Your task to perform on an android device: turn off javascript in the chrome app Image 0: 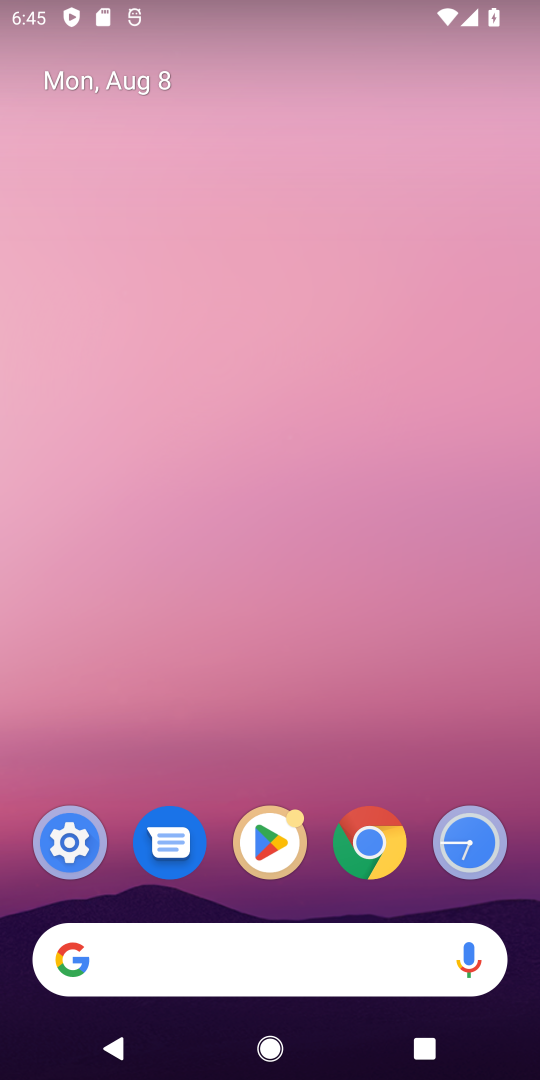
Step 0: click (365, 832)
Your task to perform on an android device: turn off javascript in the chrome app Image 1: 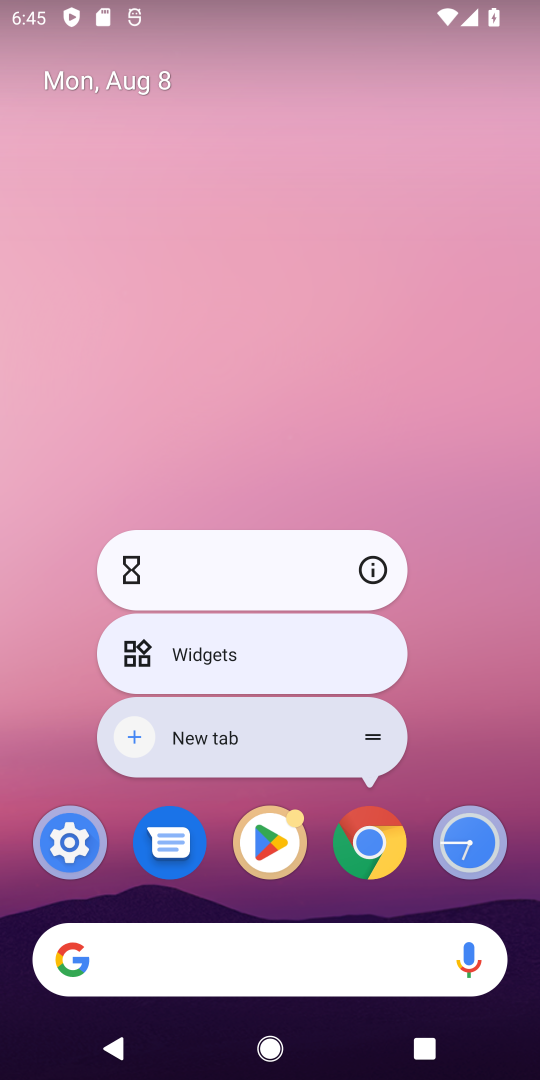
Step 1: click (385, 884)
Your task to perform on an android device: turn off javascript in the chrome app Image 2: 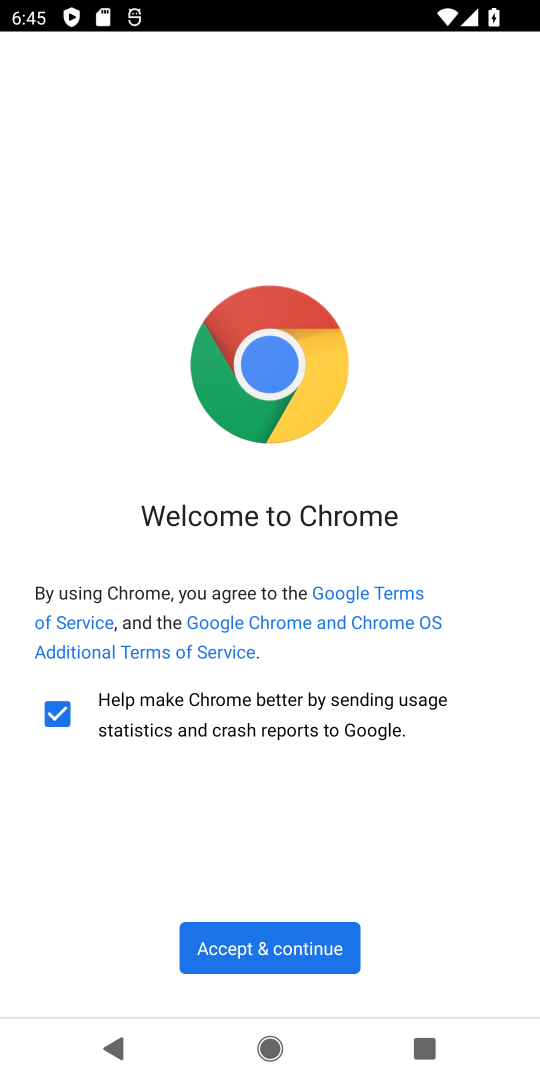
Step 2: click (243, 931)
Your task to perform on an android device: turn off javascript in the chrome app Image 3: 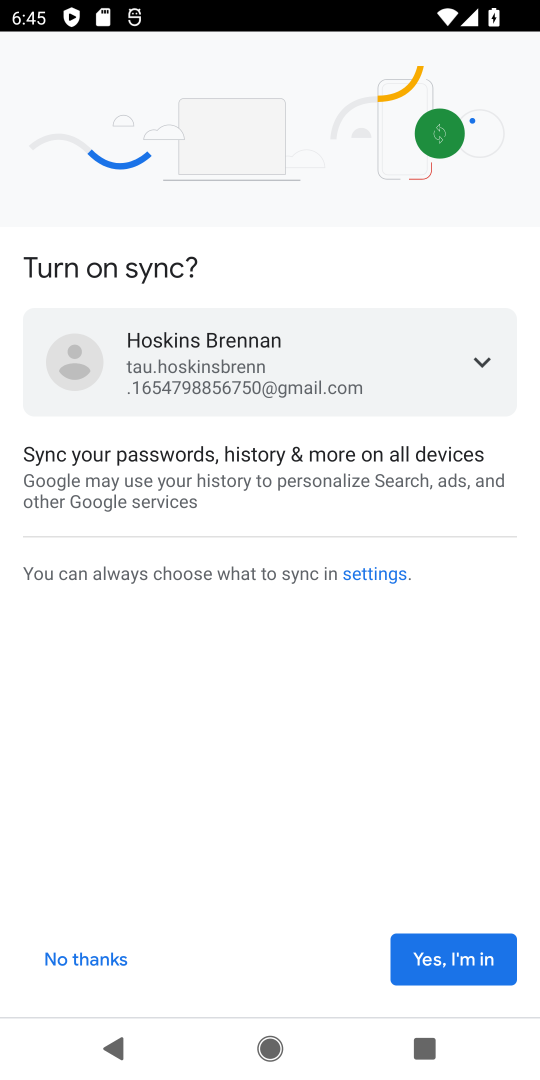
Step 3: click (400, 956)
Your task to perform on an android device: turn off javascript in the chrome app Image 4: 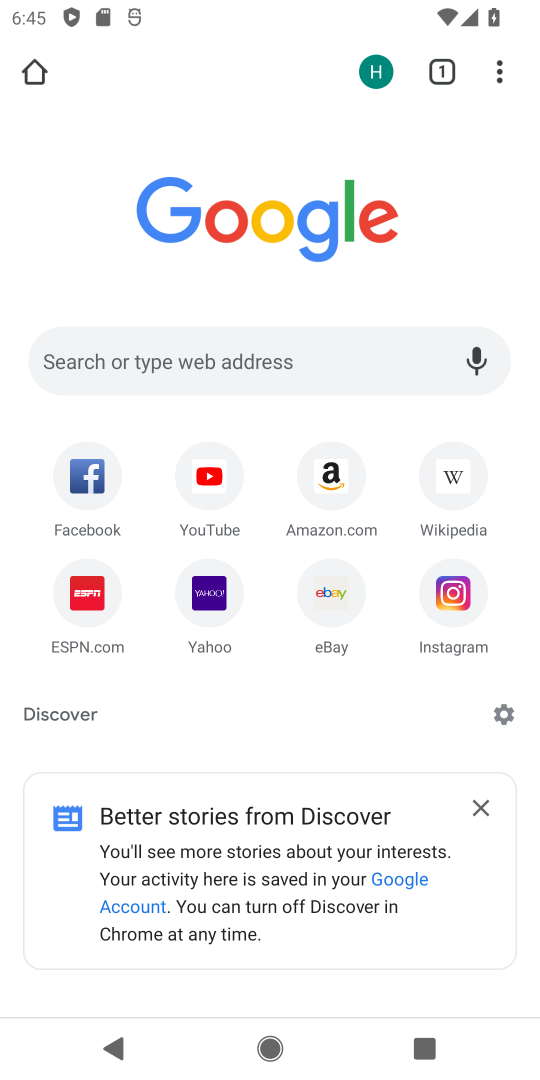
Step 4: drag from (505, 66) to (259, 674)
Your task to perform on an android device: turn off javascript in the chrome app Image 5: 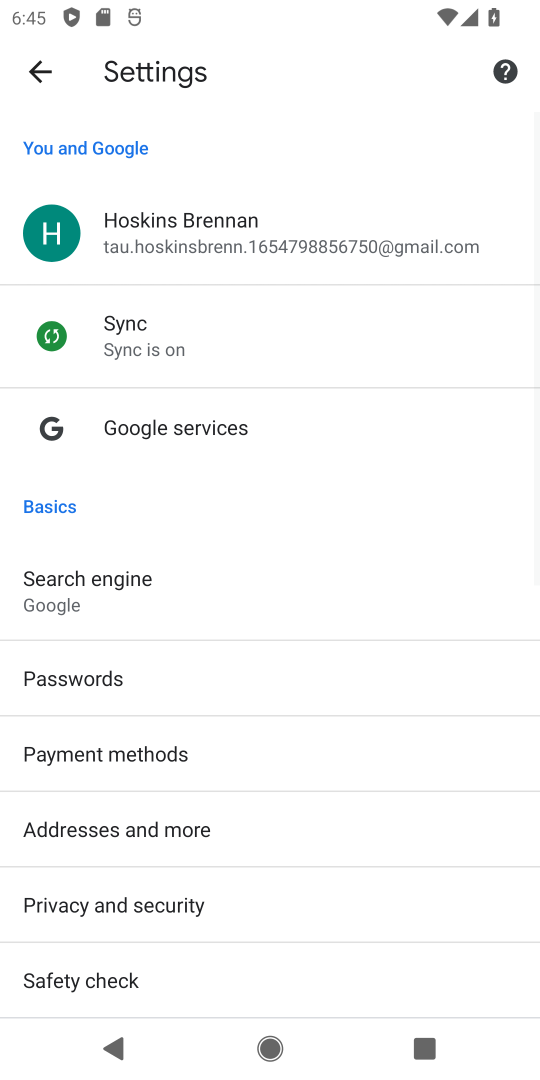
Step 5: drag from (231, 811) to (229, 303)
Your task to perform on an android device: turn off javascript in the chrome app Image 6: 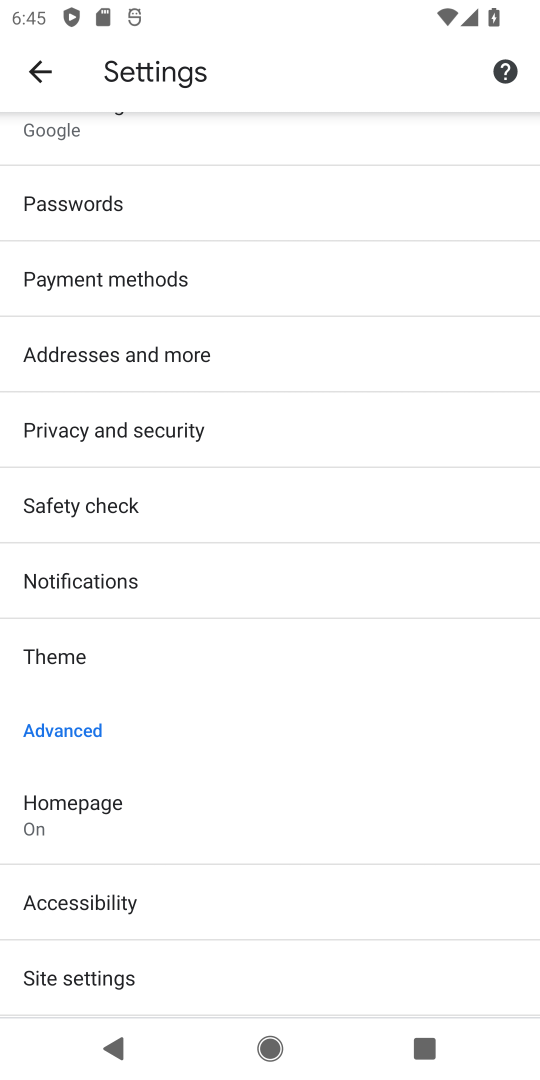
Step 6: drag from (161, 940) to (107, 268)
Your task to perform on an android device: turn off javascript in the chrome app Image 7: 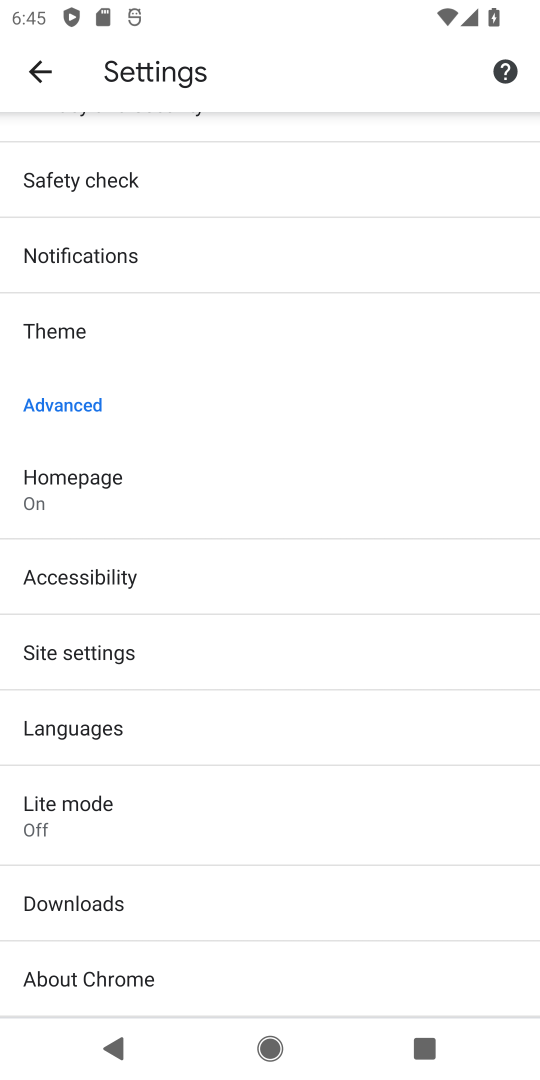
Step 7: click (118, 651)
Your task to perform on an android device: turn off javascript in the chrome app Image 8: 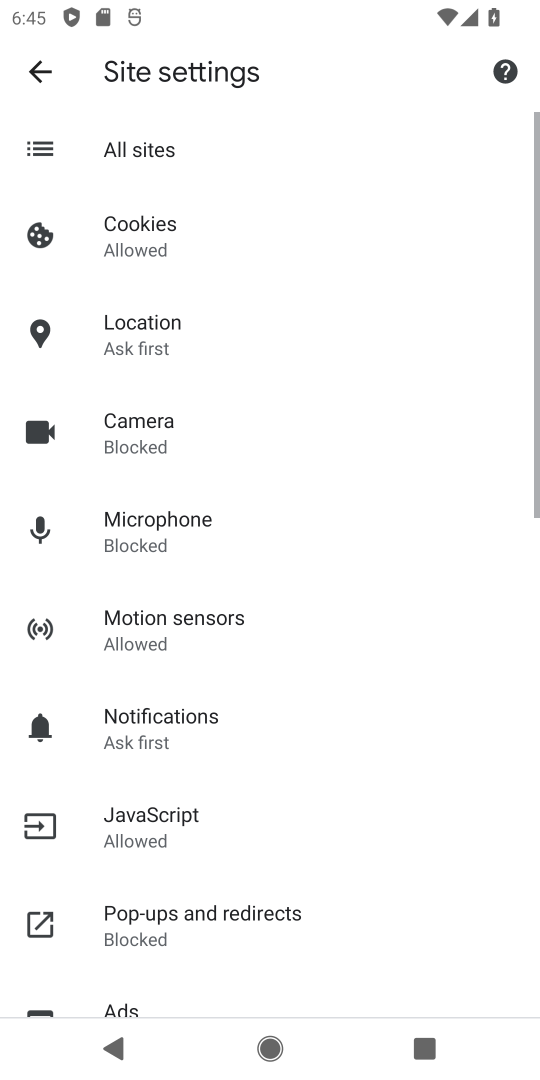
Step 8: click (126, 835)
Your task to perform on an android device: turn off javascript in the chrome app Image 9: 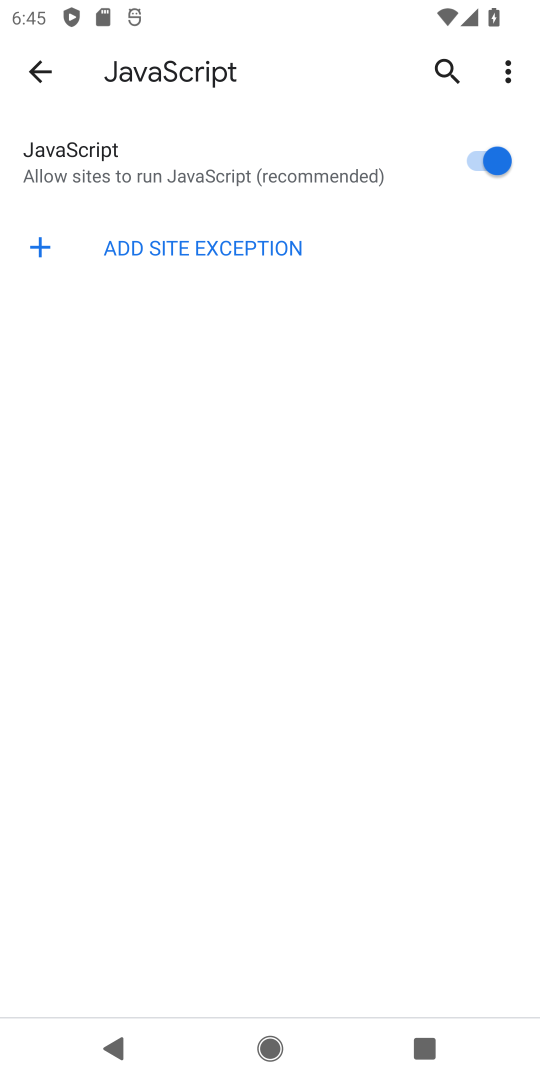
Step 9: click (461, 156)
Your task to perform on an android device: turn off javascript in the chrome app Image 10: 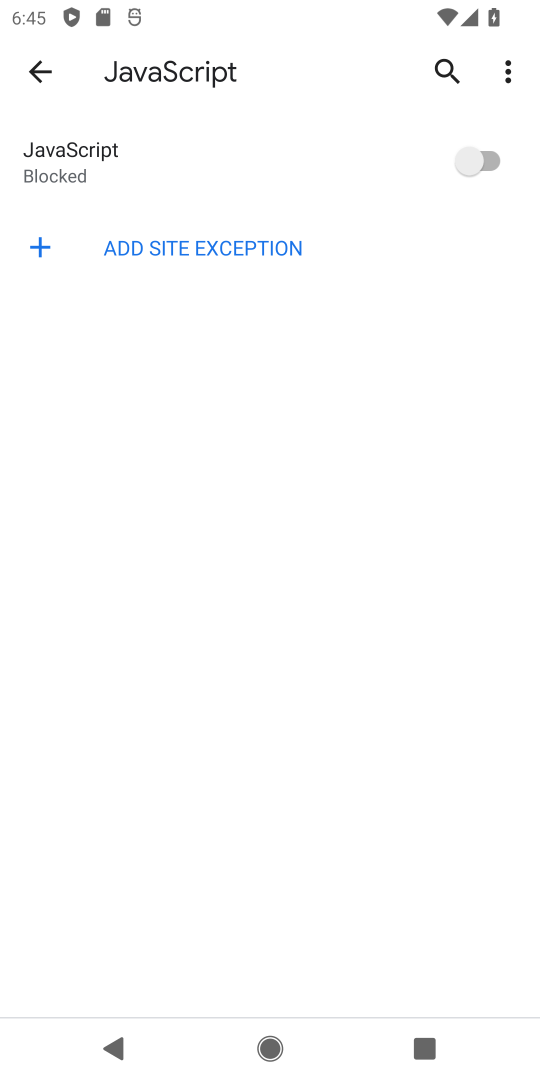
Step 10: task complete